Your task to perform on an android device: Is it going to rain today? Image 0: 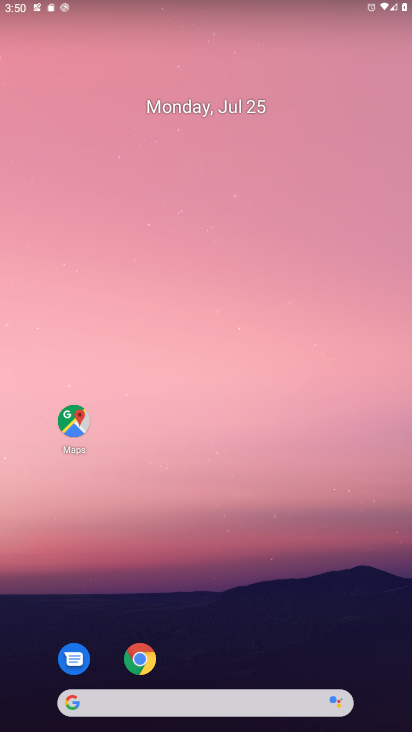
Step 0: click (154, 709)
Your task to perform on an android device: Is it going to rain today? Image 1: 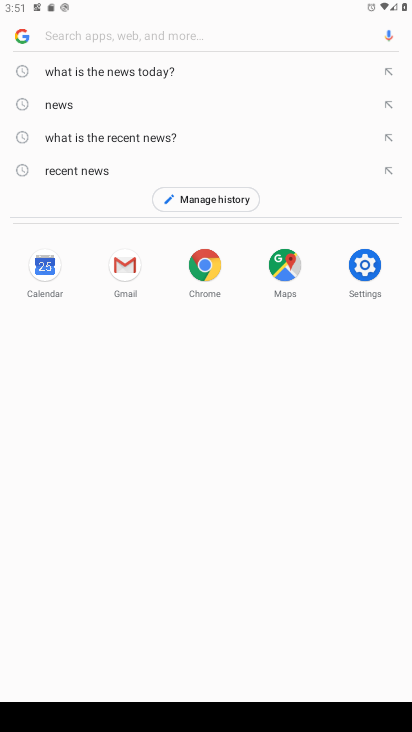
Step 1: type "wheather"
Your task to perform on an android device: Is it going to rain today? Image 2: 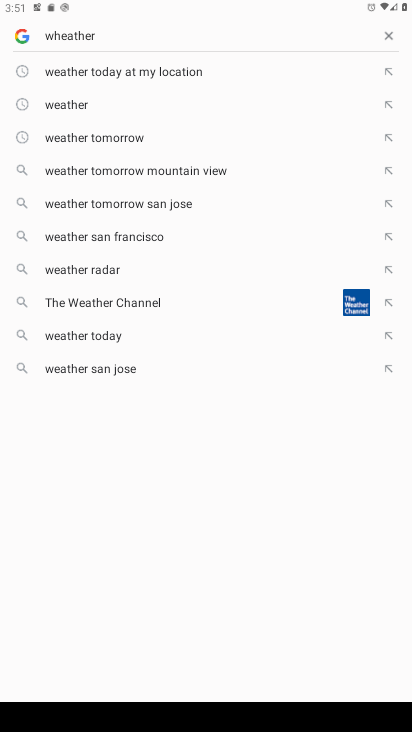
Step 2: click (68, 111)
Your task to perform on an android device: Is it going to rain today? Image 3: 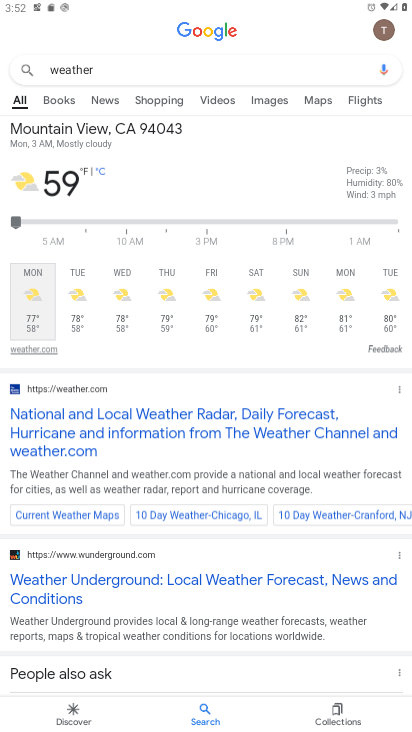
Step 3: task complete